Your task to perform on an android device: see sites visited before in the chrome app Image 0: 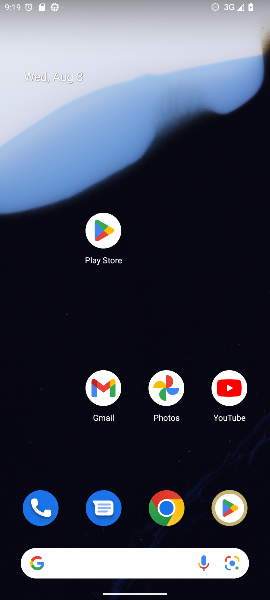
Step 0: click (176, 512)
Your task to perform on an android device: see sites visited before in the chrome app Image 1: 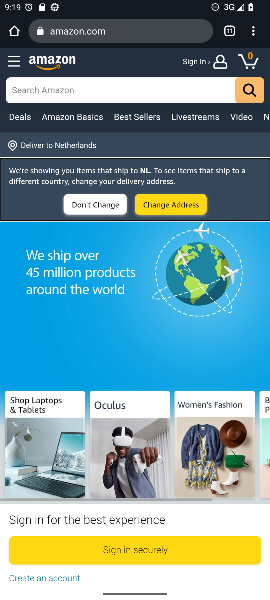
Step 1: click (225, 39)
Your task to perform on an android device: see sites visited before in the chrome app Image 2: 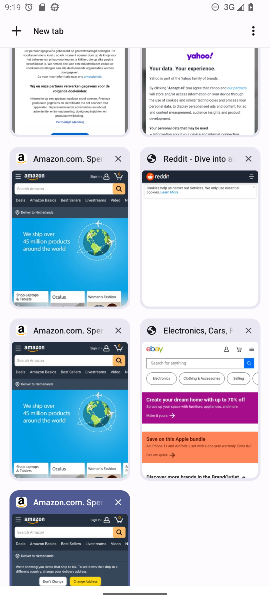
Step 2: task complete